Your task to perform on an android device: change text size in settings app Image 0: 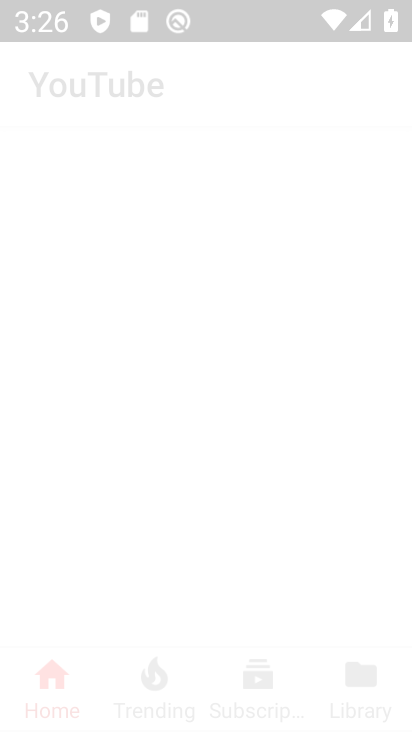
Step 0: drag from (261, 569) to (232, 110)
Your task to perform on an android device: change text size in settings app Image 1: 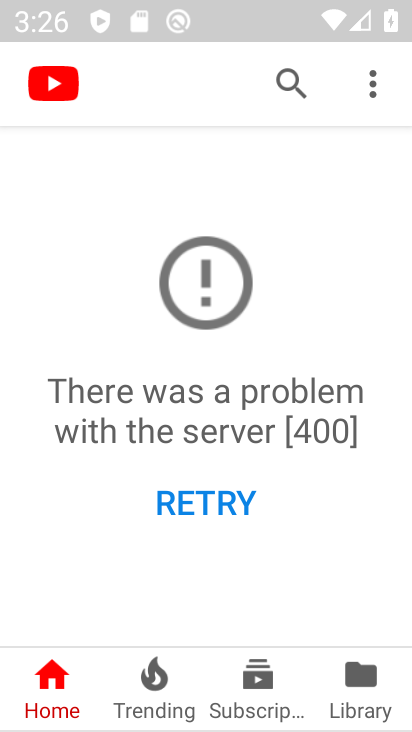
Step 1: press home button
Your task to perform on an android device: change text size in settings app Image 2: 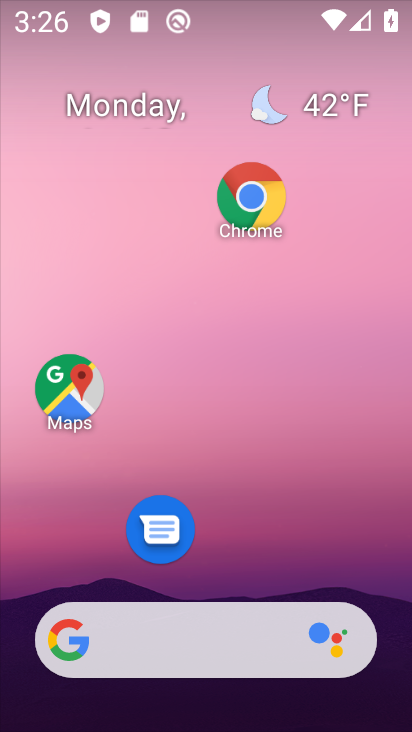
Step 2: drag from (267, 485) to (257, 92)
Your task to perform on an android device: change text size in settings app Image 3: 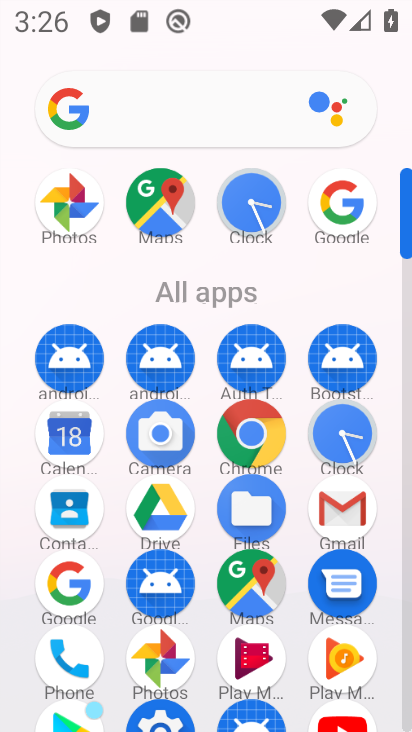
Step 3: drag from (200, 538) to (193, 224)
Your task to perform on an android device: change text size in settings app Image 4: 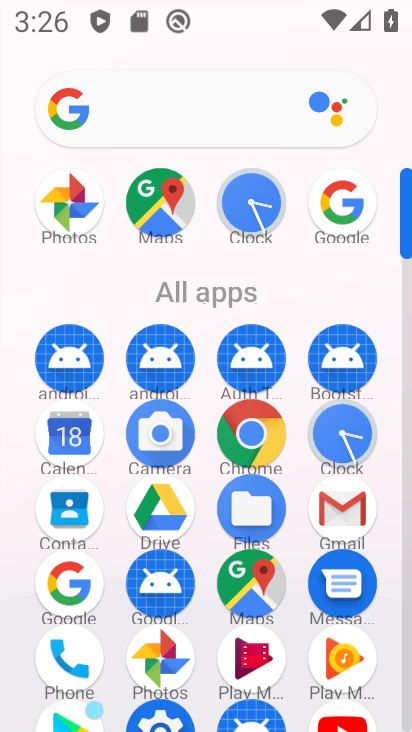
Step 4: click (172, 712)
Your task to perform on an android device: change text size in settings app Image 5: 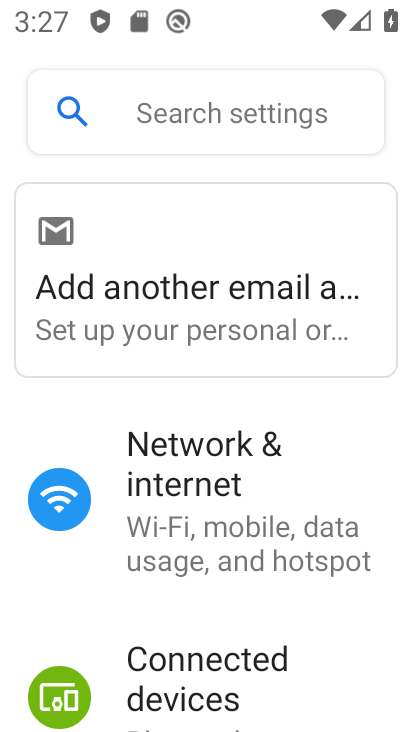
Step 5: drag from (253, 574) to (245, 265)
Your task to perform on an android device: change text size in settings app Image 6: 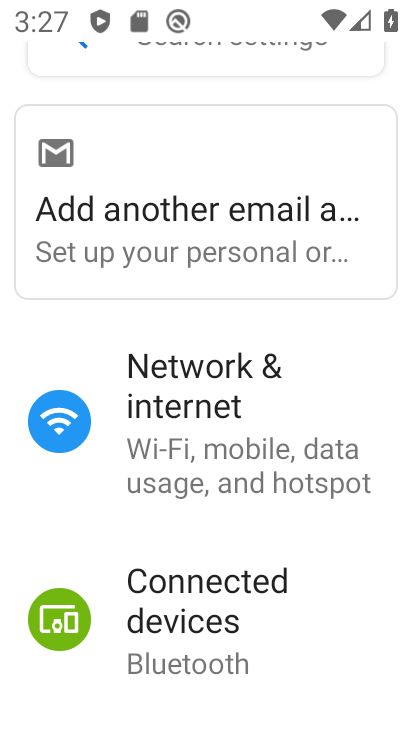
Step 6: drag from (235, 592) to (235, 188)
Your task to perform on an android device: change text size in settings app Image 7: 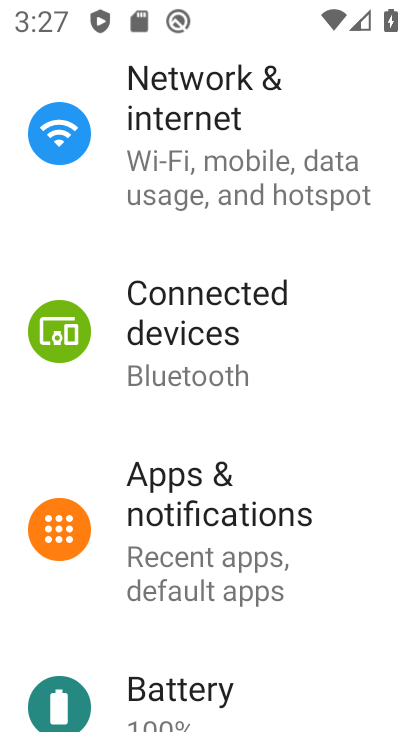
Step 7: drag from (224, 354) to (224, 228)
Your task to perform on an android device: change text size in settings app Image 8: 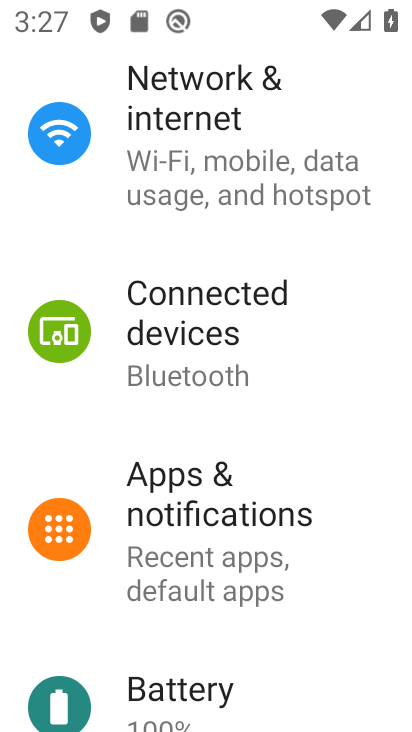
Step 8: drag from (215, 377) to (230, 156)
Your task to perform on an android device: change text size in settings app Image 9: 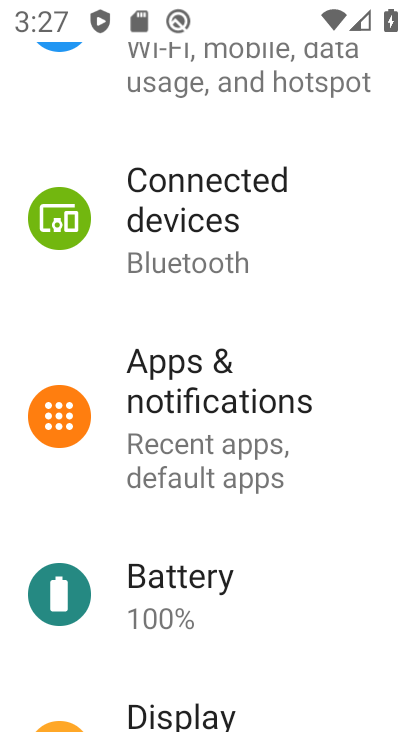
Step 9: click (227, 706)
Your task to perform on an android device: change text size in settings app Image 10: 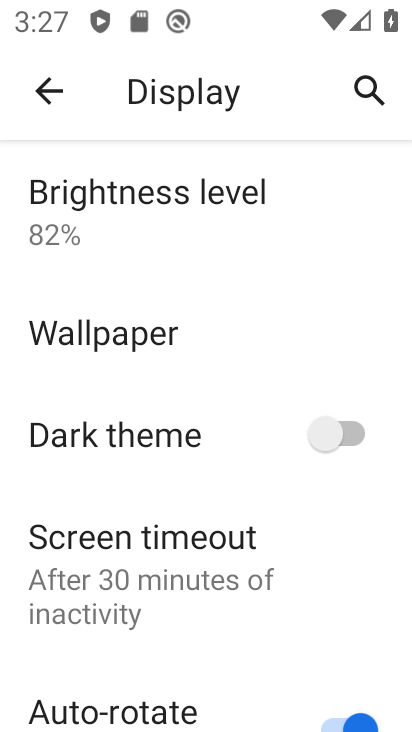
Step 10: drag from (204, 640) to (202, 226)
Your task to perform on an android device: change text size in settings app Image 11: 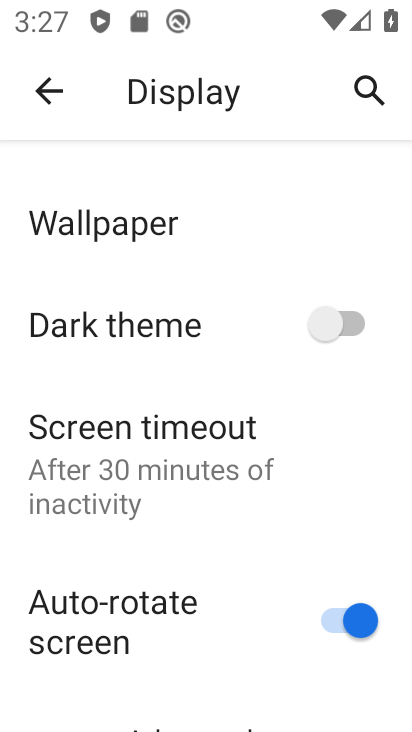
Step 11: drag from (165, 556) to (184, 187)
Your task to perform on an android device: change text size in settings app Image 12: 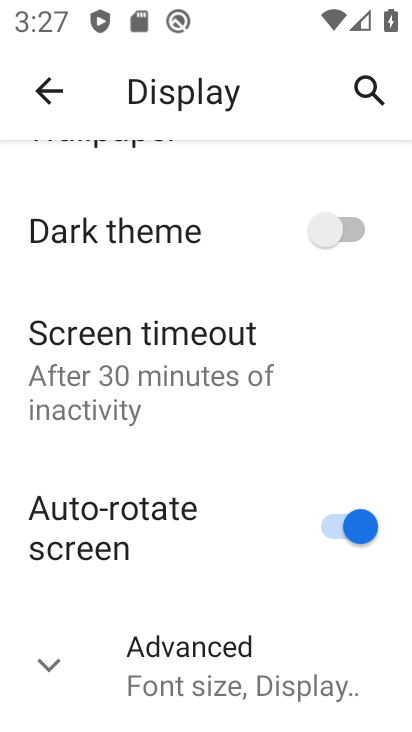
Step 12: click (176, 645)
Your task to perform on an android device: change text size in settings app Image 13: 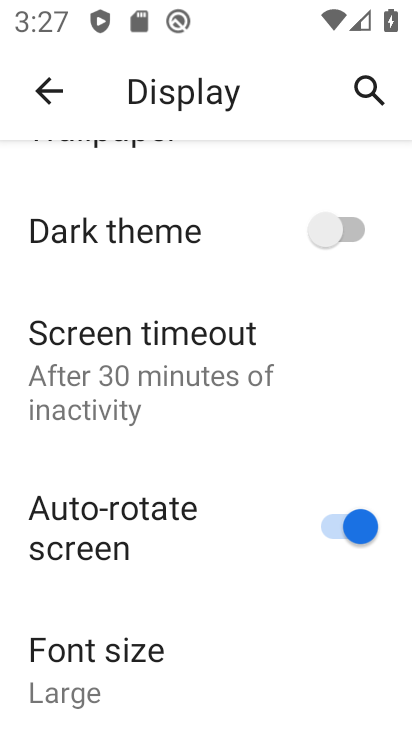
Step 13: click (115, 653)
Your task to perform on an android device: change text size in settings app Image 14: 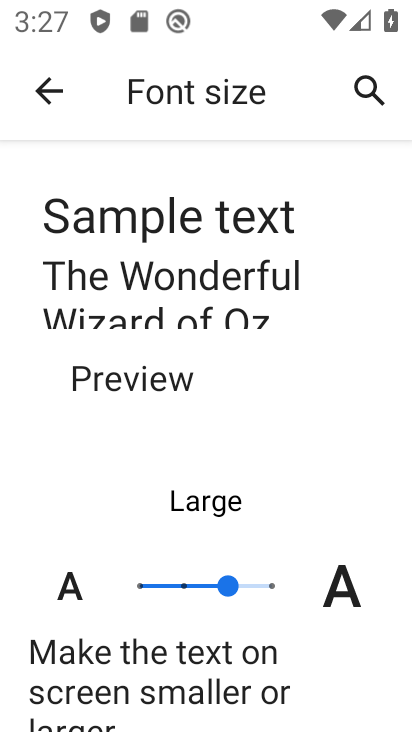
Step 14: click (176, 588)
Your task to perform on an android device: change text size in settings app Image 15: 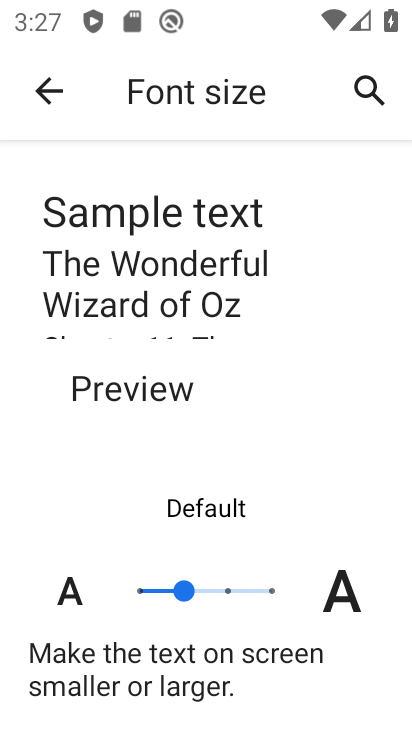
Step 15: task complete